Your task to perform on an android device: Search for pizza restaurants on Maps Image 0: 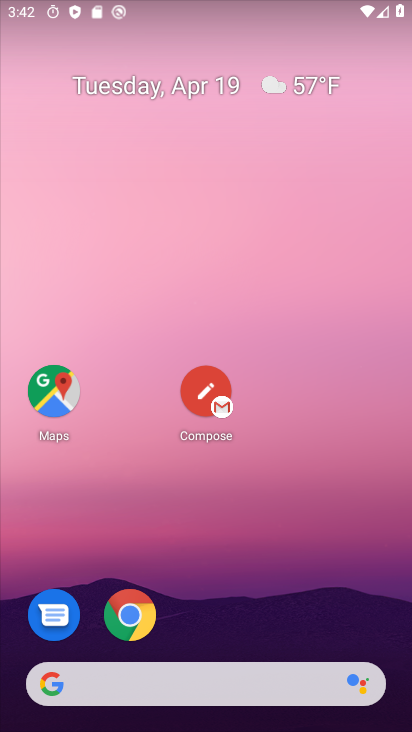
Step 0: drag from (330, 487) to (339, 159)
Your task to perform on an android device: Search for pizza restaurants on Maps Image 1: 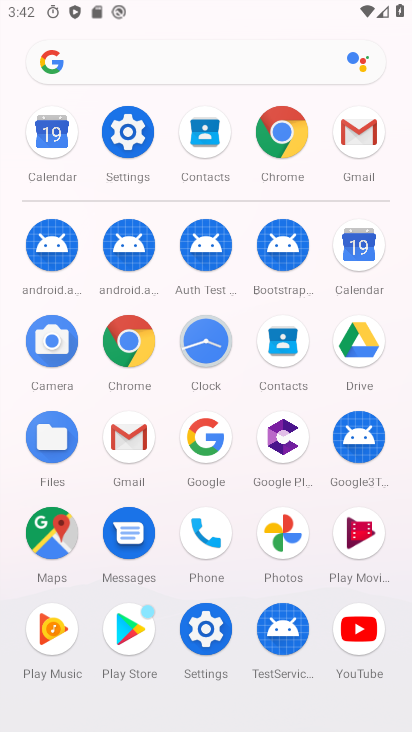
Step 1: click (49, 543)
Your task to perform on an android device: Search for pizza restaurants on Maps Image 2: 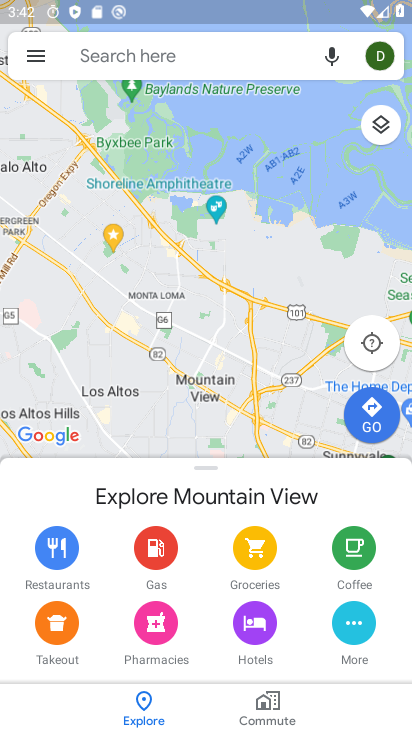
Step 2: click (248, 62)
Your task to perform on an android device: Search for pizza restaurants on Maps Image 3: 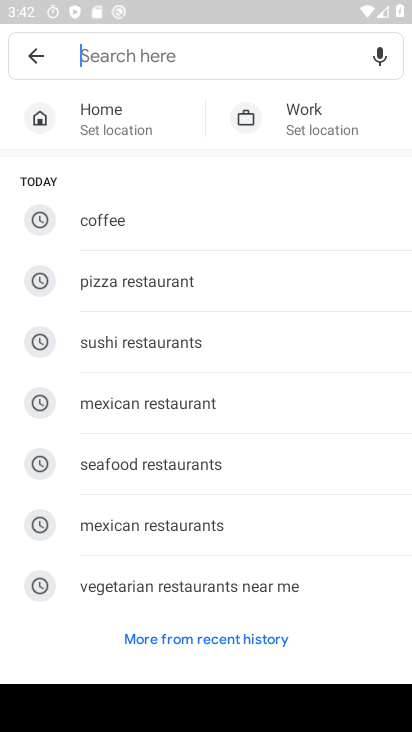
Step 3: type "pizza restaurant"
Your task to perform on an android device: Search for pizza restaurants on Maps Image 4: 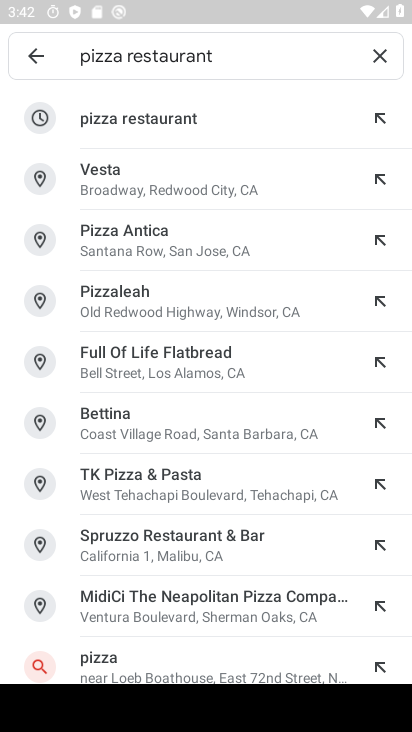
Step 4: click (235, 130)
Your task to perform on an android device: Search for pizza restaurants on Maps Image 5: 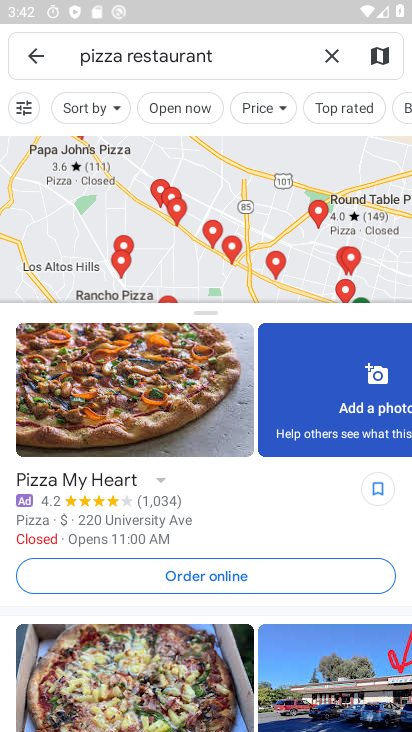
Step 5: task complete